Your task to perform on an android device: turn pop-ups off in chrome Image 0: 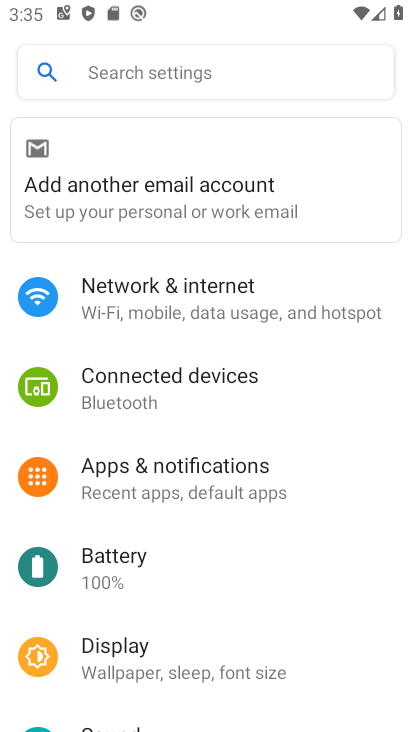
Step 0: press home button
Your task to perform on an android device: turn pop-ups off in chrome Image 1: 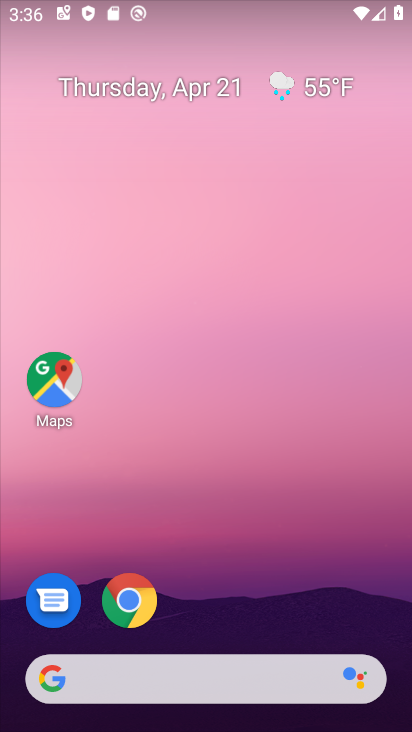
Step 1: drag from (156, 684) to (324, 32)
Your task to perform on an android device: turn pop-ups off in chrome Image 2: 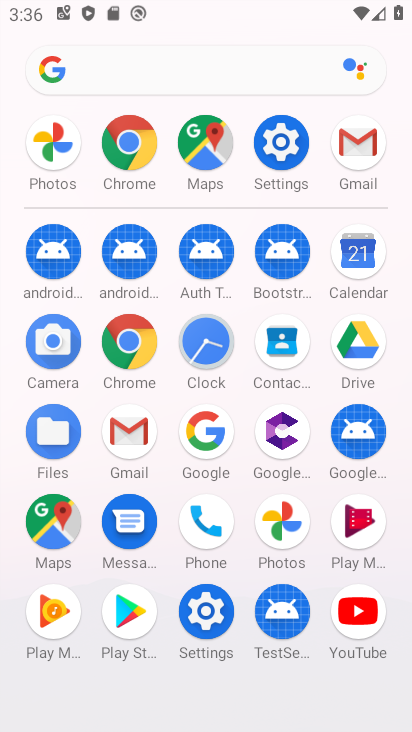
Step 2: click (123, 150)
Your task to perform on an android device: turn pop-ups off in chrome Image 3: 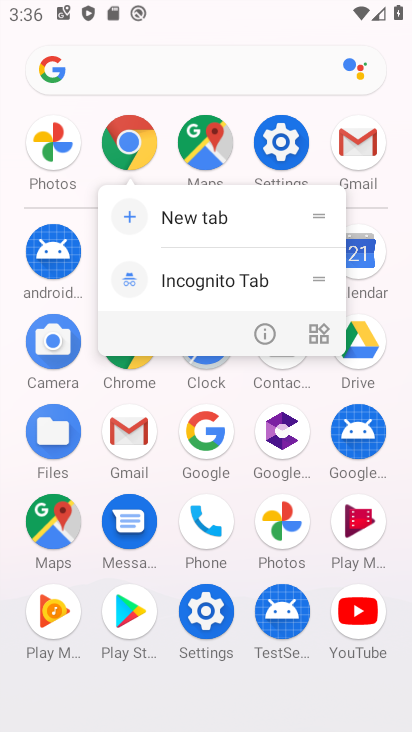
Step 3: click (119, 148)
Your task to perform on an android device: turn pop-ups off in chrome Image 4: 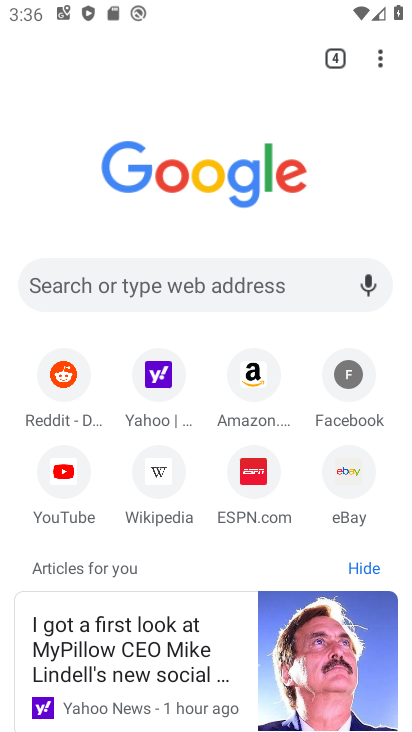
Step 4: click (372, 66)
Your task to perform on an android device: turn pop-ups off in chrome Image 5: 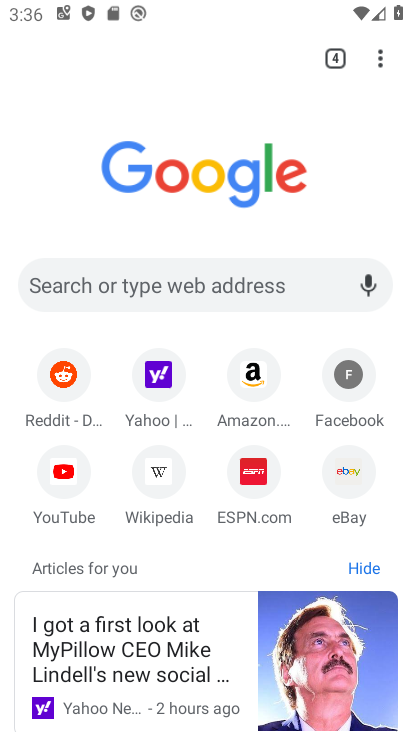
Step 5: click (369, 70)
Your task to perform on an android device: turn pop-ups off in chrome Image 6: 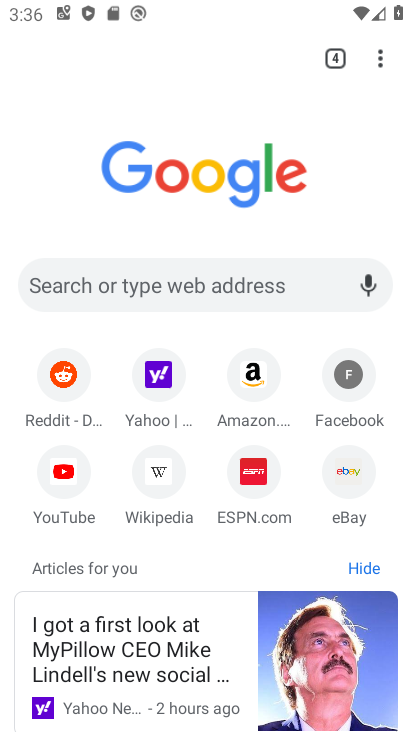
Step 6: click (367, 65)
Your task to perform on an android device: turn pop-ups off in chrome Image 7: 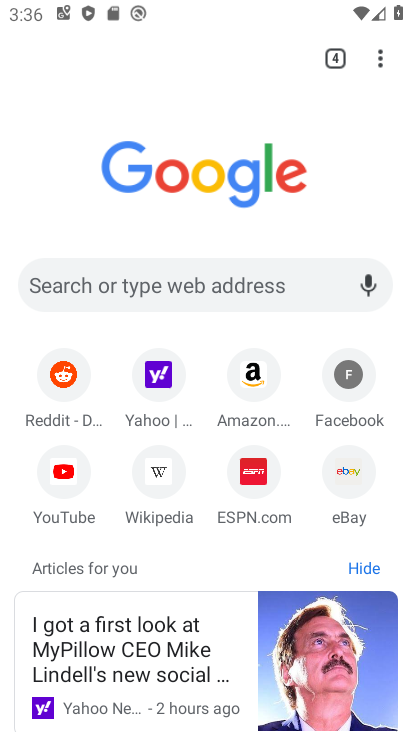
Step 7: click (374, 69)
Your task to perform on an android device: turn pop-ups off in chrome Image 8: 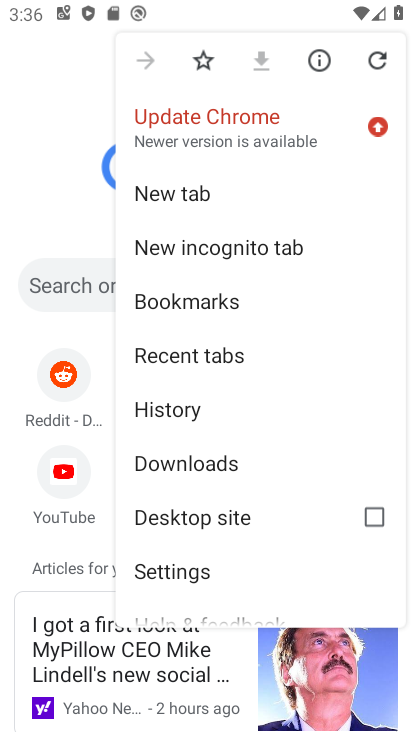
Step 8: click (190, 565)
Your task to perform on an android device: turn pop-ups off in chrome Image 9: 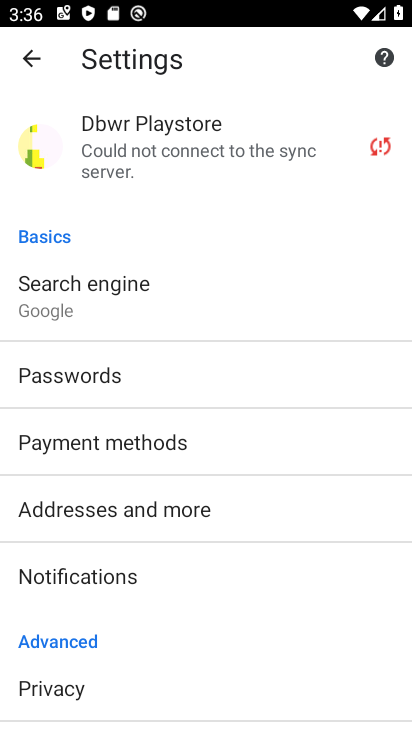
Step 9: drag from (153, 602) to (250, 309)
Your task to perform on an android device: turn pop-ups off in chrome Image 10: 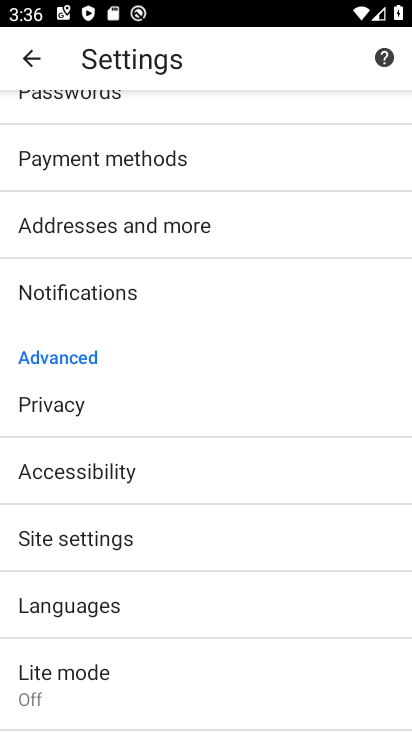
Step 10: click (105, 549)
Your task to perform on an android device: turn pop-ups off in chrome Image 11: 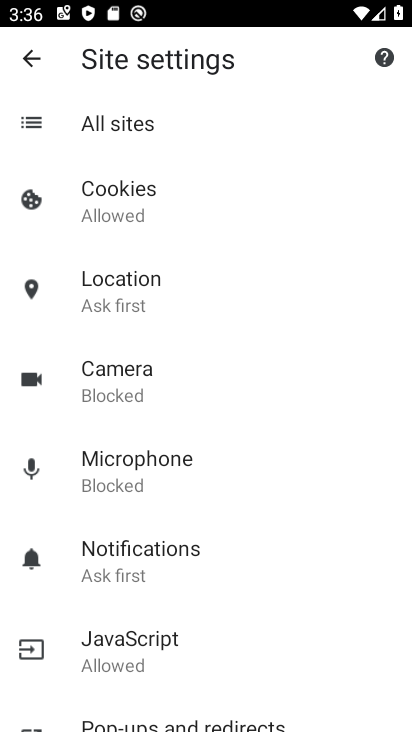
Step 11: drag from (189, 644) to (329, 261)
Your task to perform on an android device: turn pop-ups off in chrome Image 12: 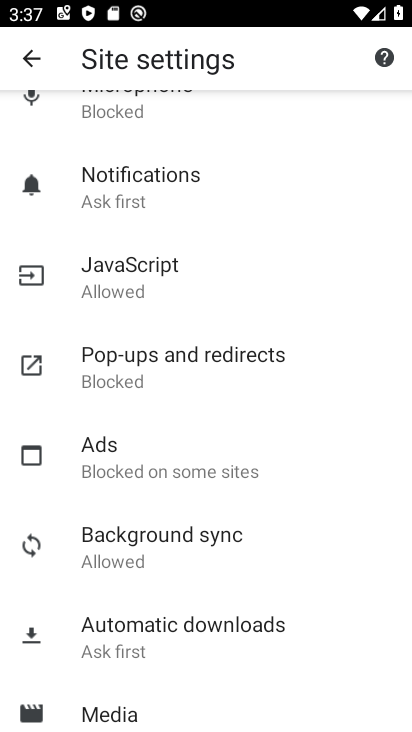
Step 12: click (212, 374)
Your task to perform on an android device: turn pop-ups off in chrome Image 13: 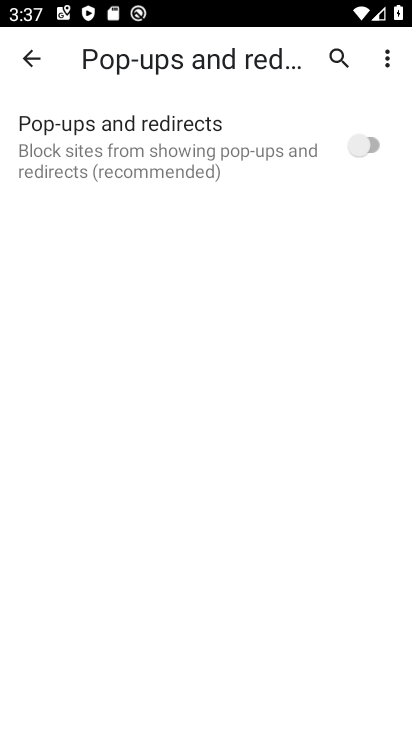
Step 13: task complete